Your task to perform on an android device: turn off location history Image 0: 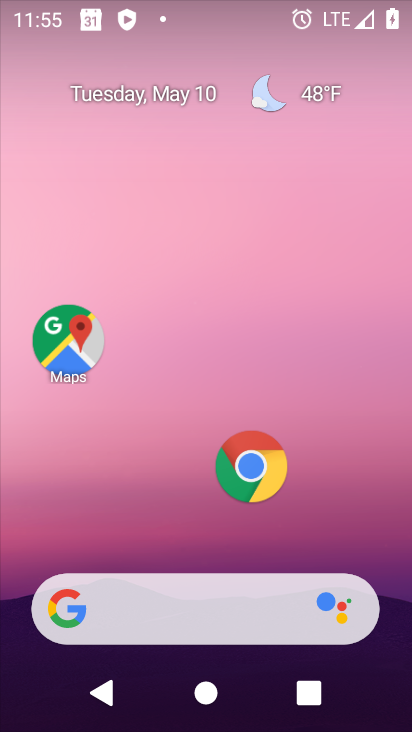
Step 0: drag from (155, 465) to (216, 51)
Your task to perform on an android device: turn off location history Image 1: 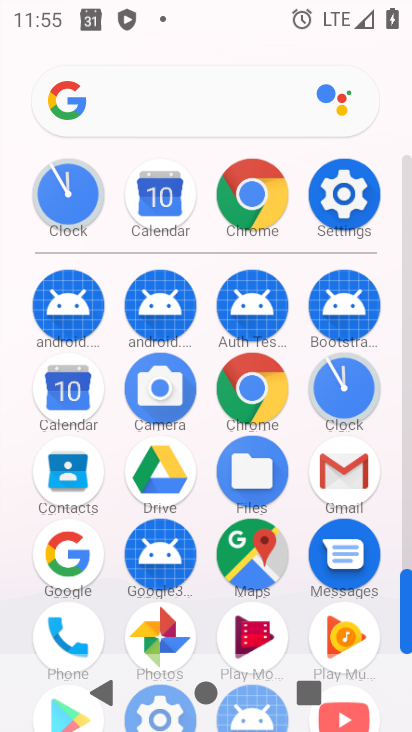
Step 1: click (341, 178)
Your task to perform on an android device: turn off location history Image 2: 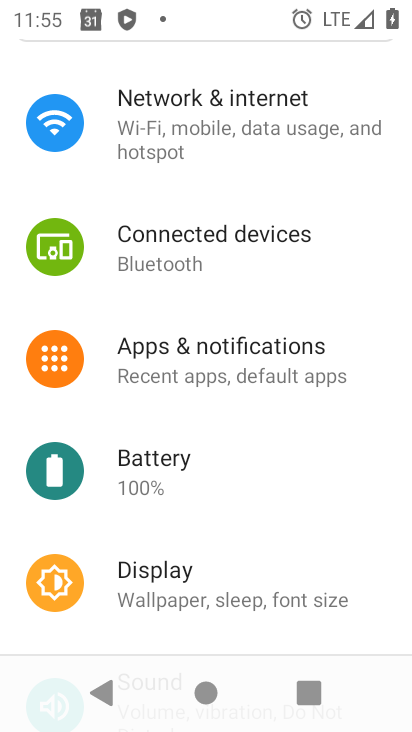
Step 2: drag from (213, 535) to (324, 67)
Your task to perform on an android device: turn off location history Image 3: 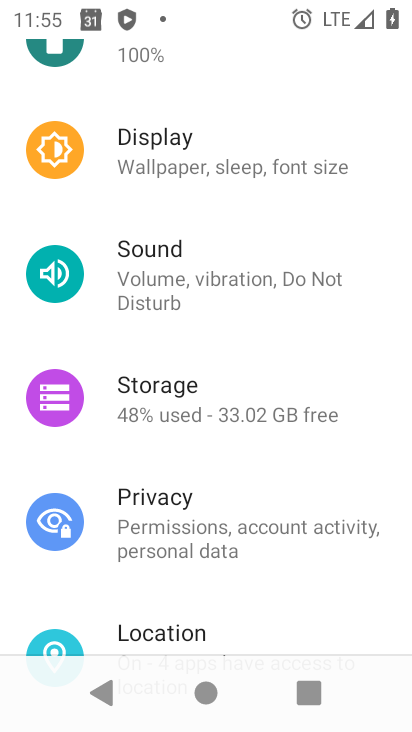
Step 3: click (174, 626)
Your task to perform on an android device: turn off location history Image 4: 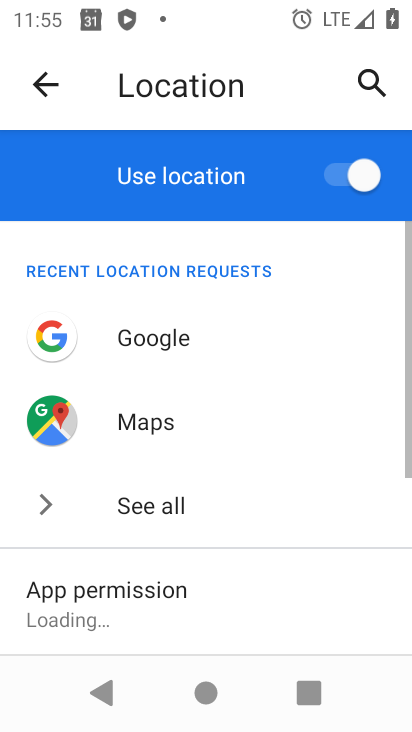
Step 4: drag from (190, 589) to (282, 186)
Your task to perform on an android device: turn off location history Image 5: 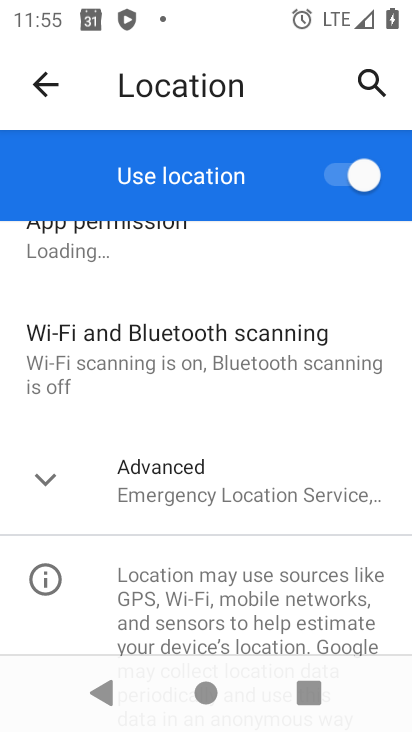
Step 5: click (183, 494)
Your task to perform on an android device: turn off location history Image 6: 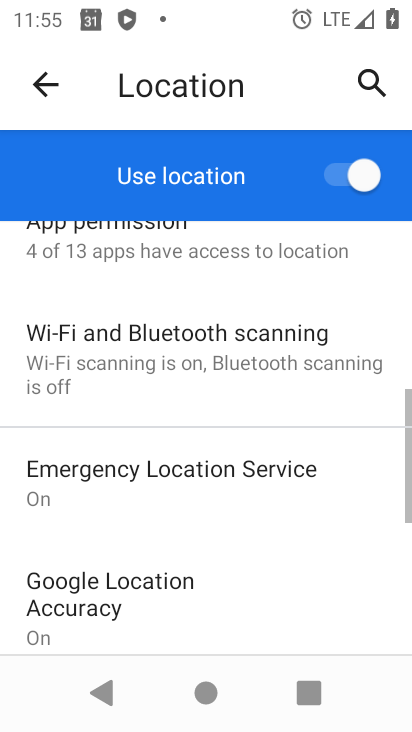
Step 6: drag from (189, 599) to (248, 246)
Your task to perform on an android device: turn off location history Image 7: 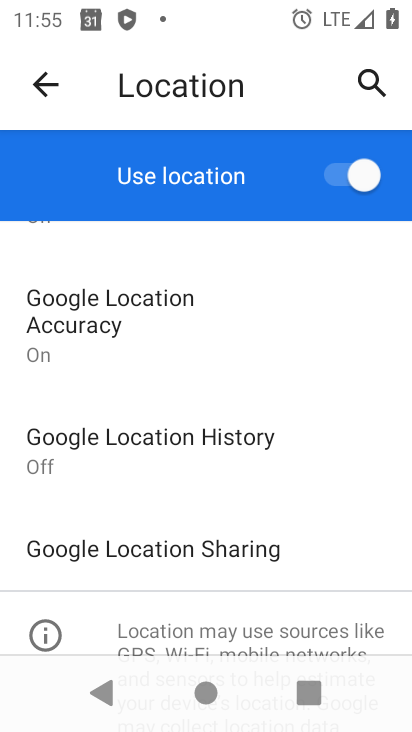
Step 7: click (154, 449)
Your task to perform on an android device: turn off location history Image 8: 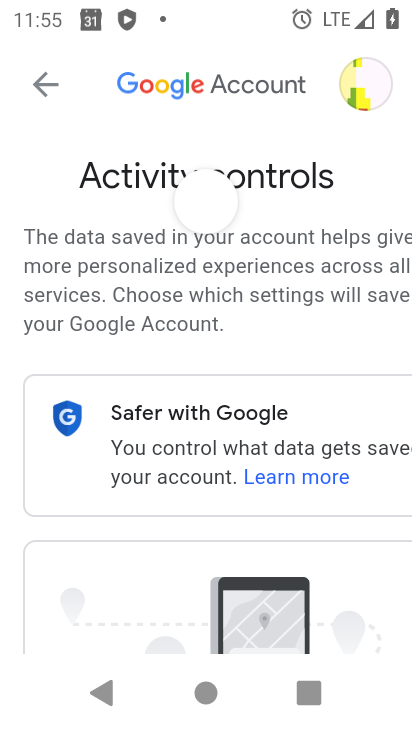
Step 8: task complete